Your task to perform on an android device: Open notification settings Image 0: 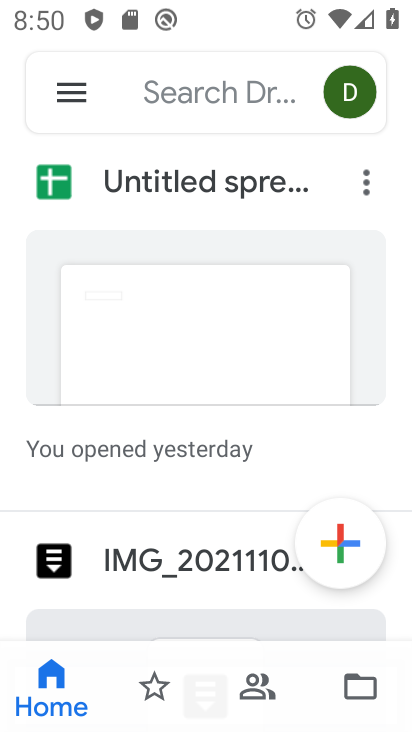
Step 0: press back button
Your task to perform on an android device: Open notification settings Image 1: 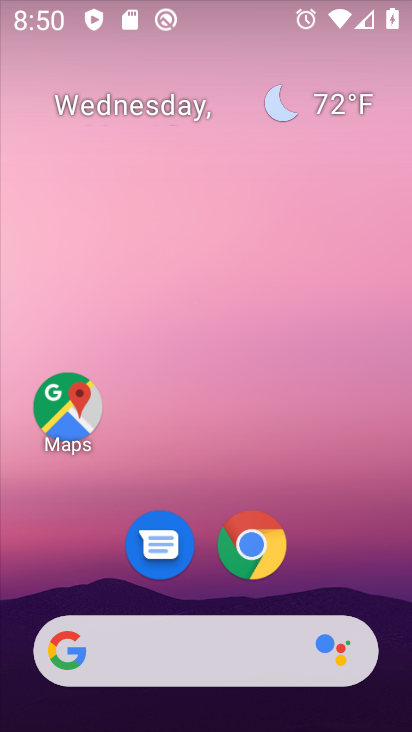
Step 1: drag from (343, 658) to (189, 121)
Your task to perform on an android device: Open notification settings Image 2: 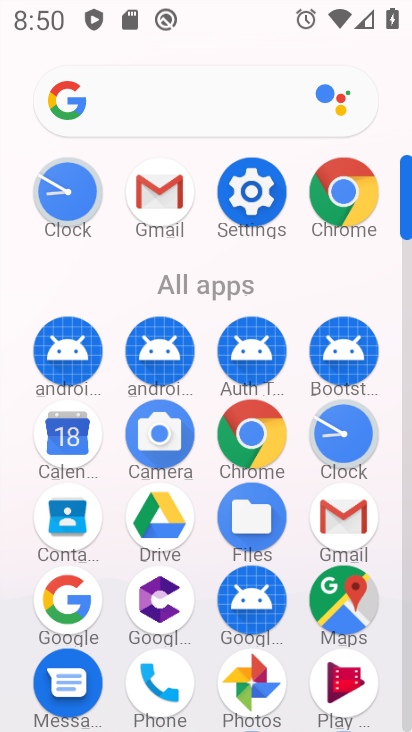
Step 2: click (240, 188)
Your task to perform on an android device: Open notification settings Image 3: 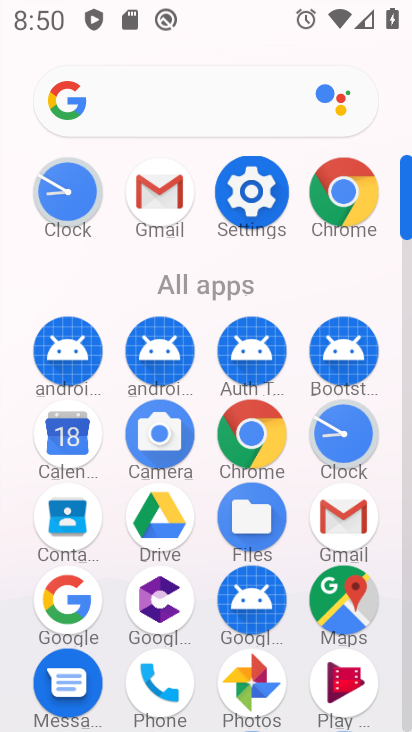
Step 3: click (240, 188)
Your task to perform on an android device: Open notification settings Image 4: 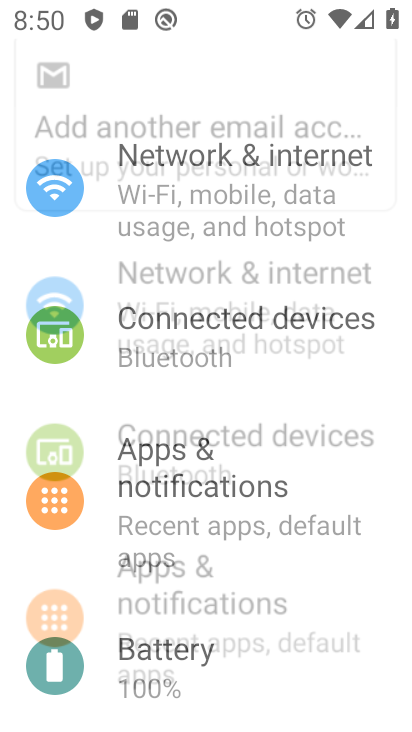
Step 4: click (240, 188)
Your task to perform on an android device: Open notification settings Image 5: 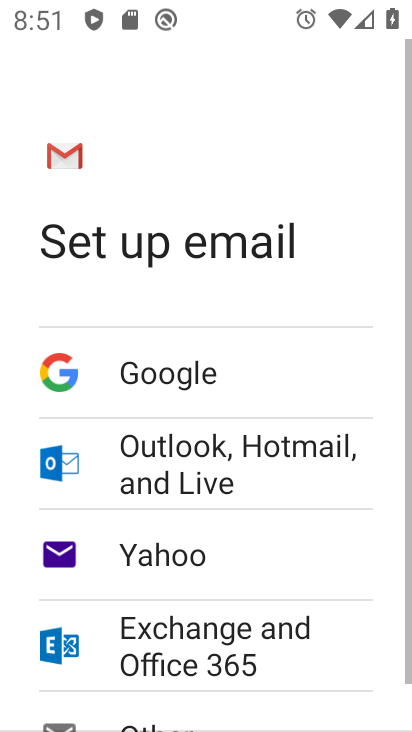
Step 5: press back button
Your task to perform on an android device: Open notification settings Image 6: 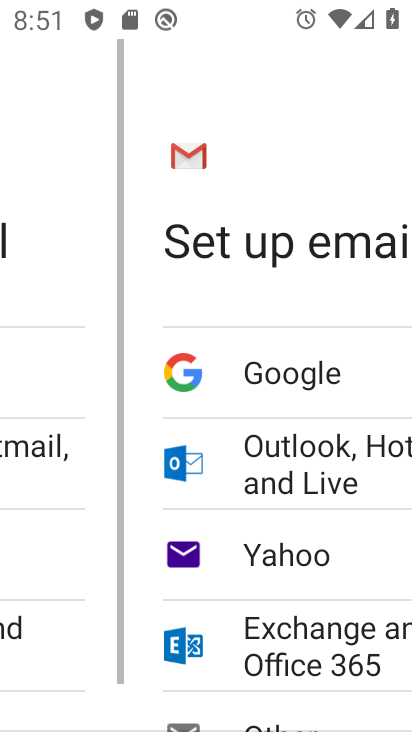
Step 6: press back button
Your task to perform on an android device: Open notification settings Image 7: 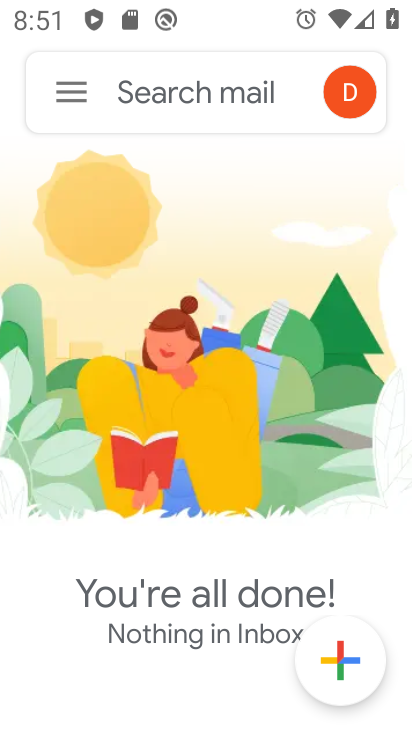
Step 7: press home button
Your task to perform on an android device: Open notification settings Image 8: 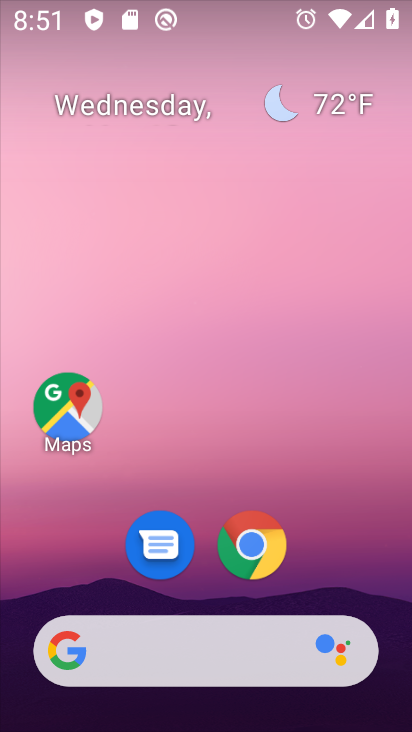
Step 8: drag from (311, 592) to (47, 15)
Your task to perform on an android device: Open notification settings Image 9: 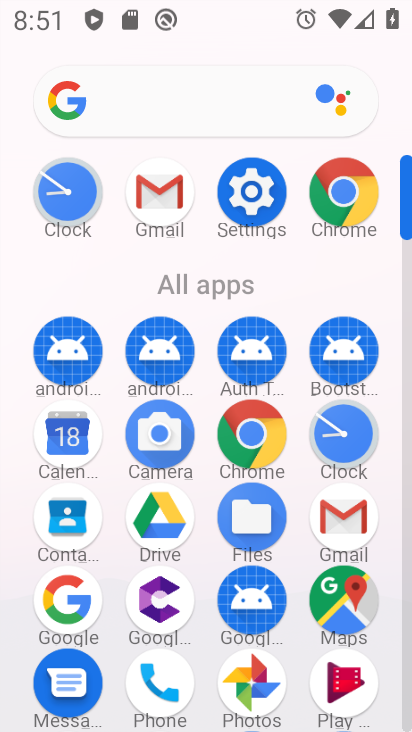
Step 9: click (252, 201)
Your task to perform on an android device: Open notification settings Image 10: 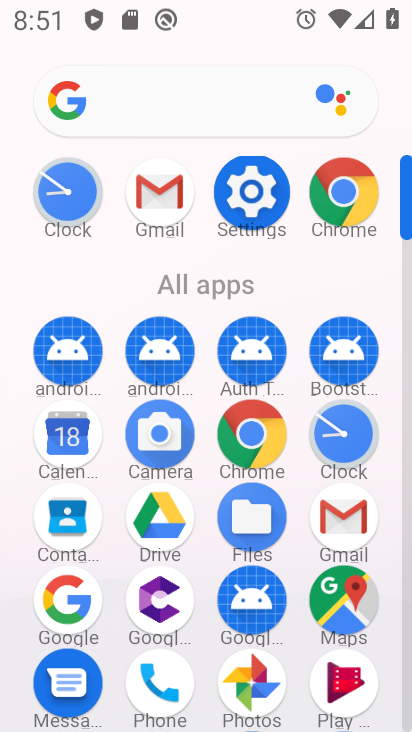
Step 10: click (252, 201)
Your task to perform on an android device: Open notification settings Image 11: 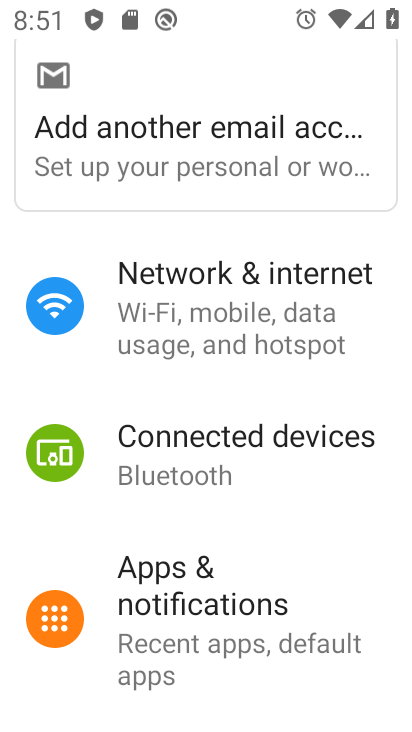
Step 11: click (198, 603)
Your task to perform on an android device: Open notification settings Image 12: 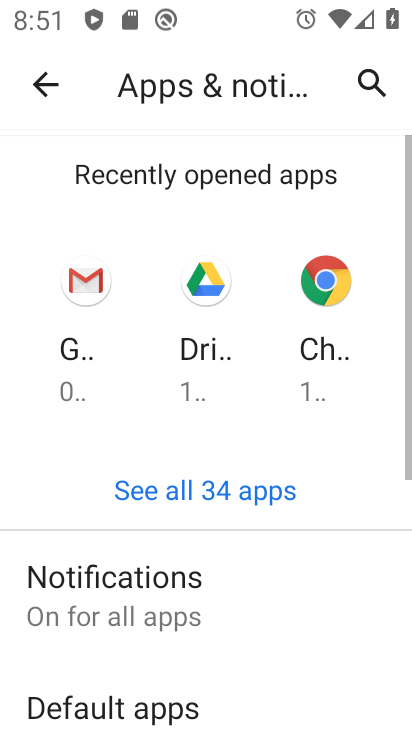
Step 12: task complete